Your task to perform on an android device: Go to eBay Image 0: 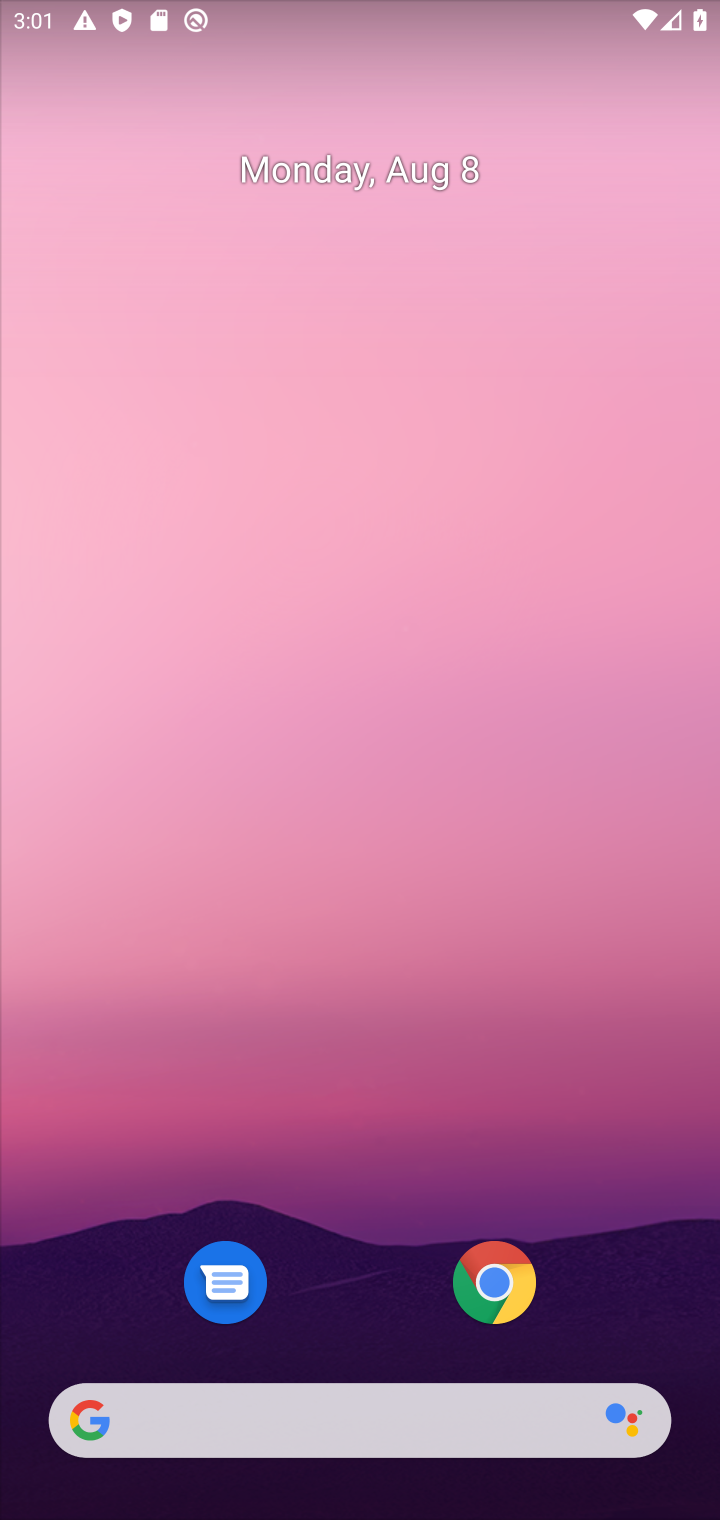
Step 0: drag from (354, 965) to (476, 269)
Your task to perform on an android device: Go to eBay Image 1: 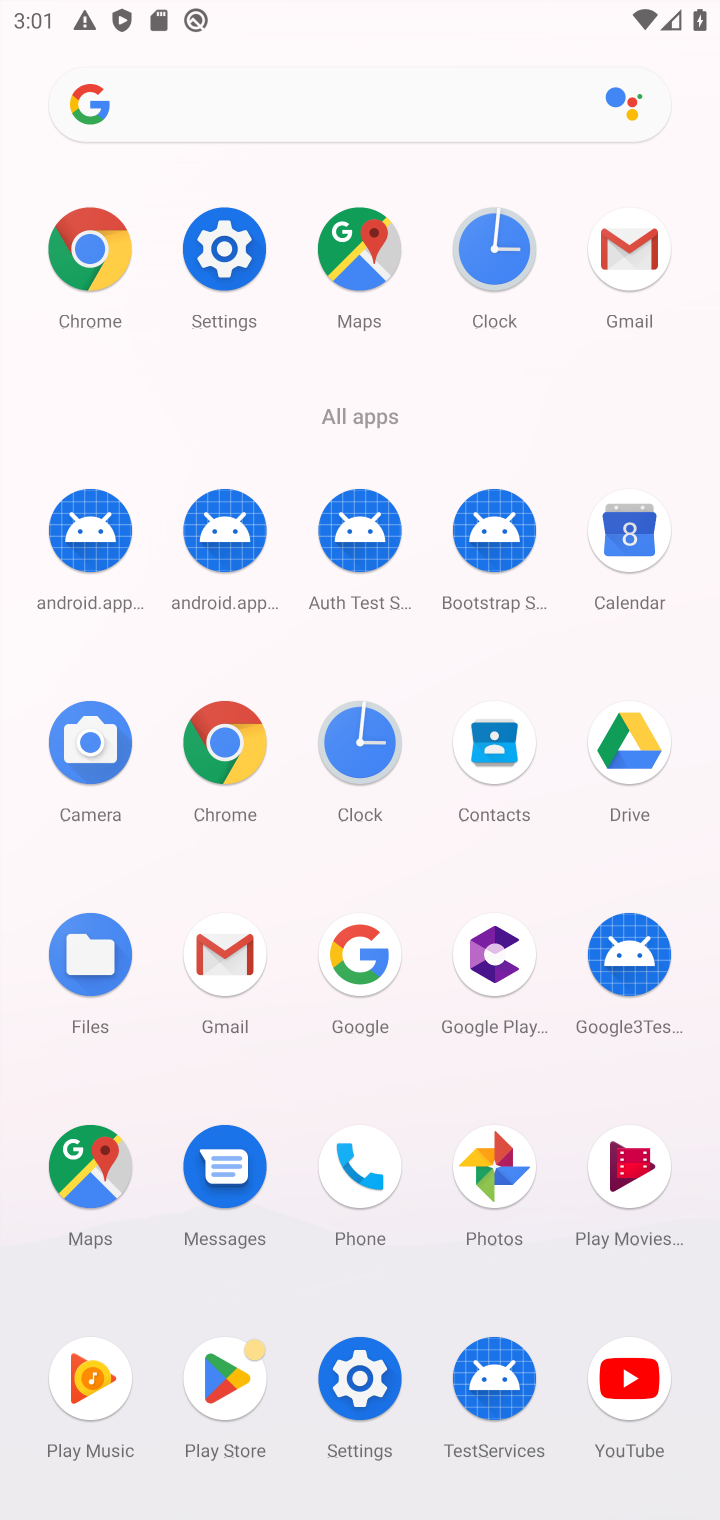
Step 1: click (224, 738)
Your task to perform on an android device: Go to eBay Image 2: 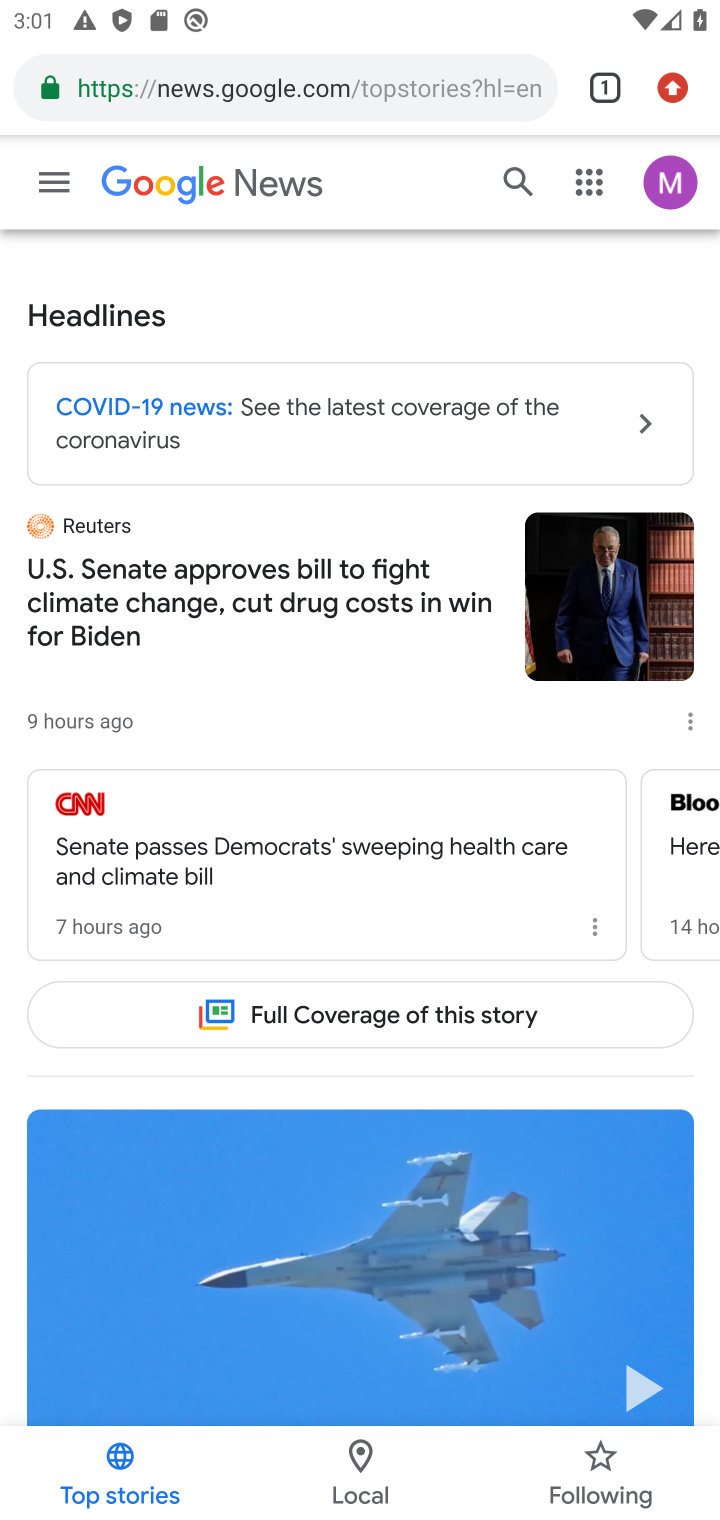
Step 2: click (381, 89)
Your task to perform on an android device: Go to eBay Image 3: 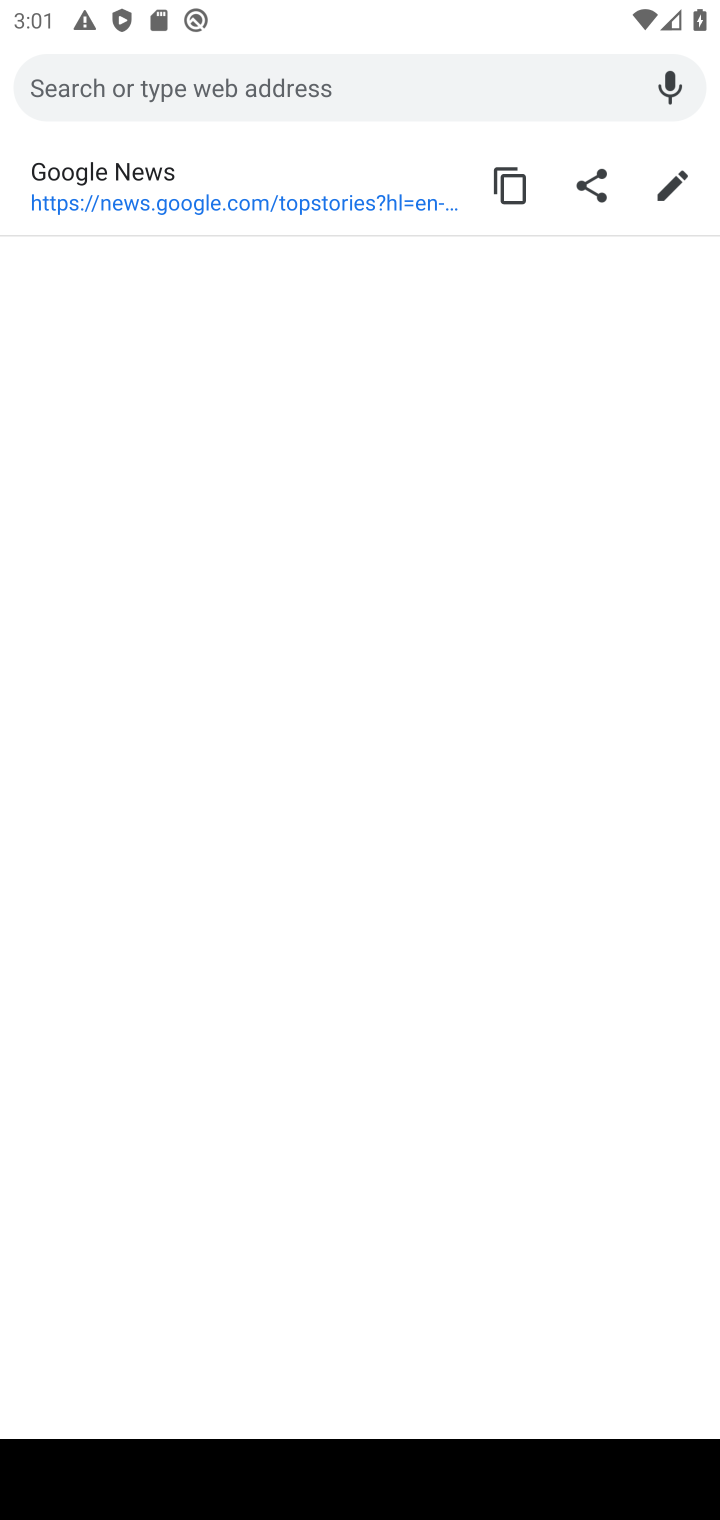
Step 3: type "ebay"
Your task to perform on an android device: Go to eBay Image 4: 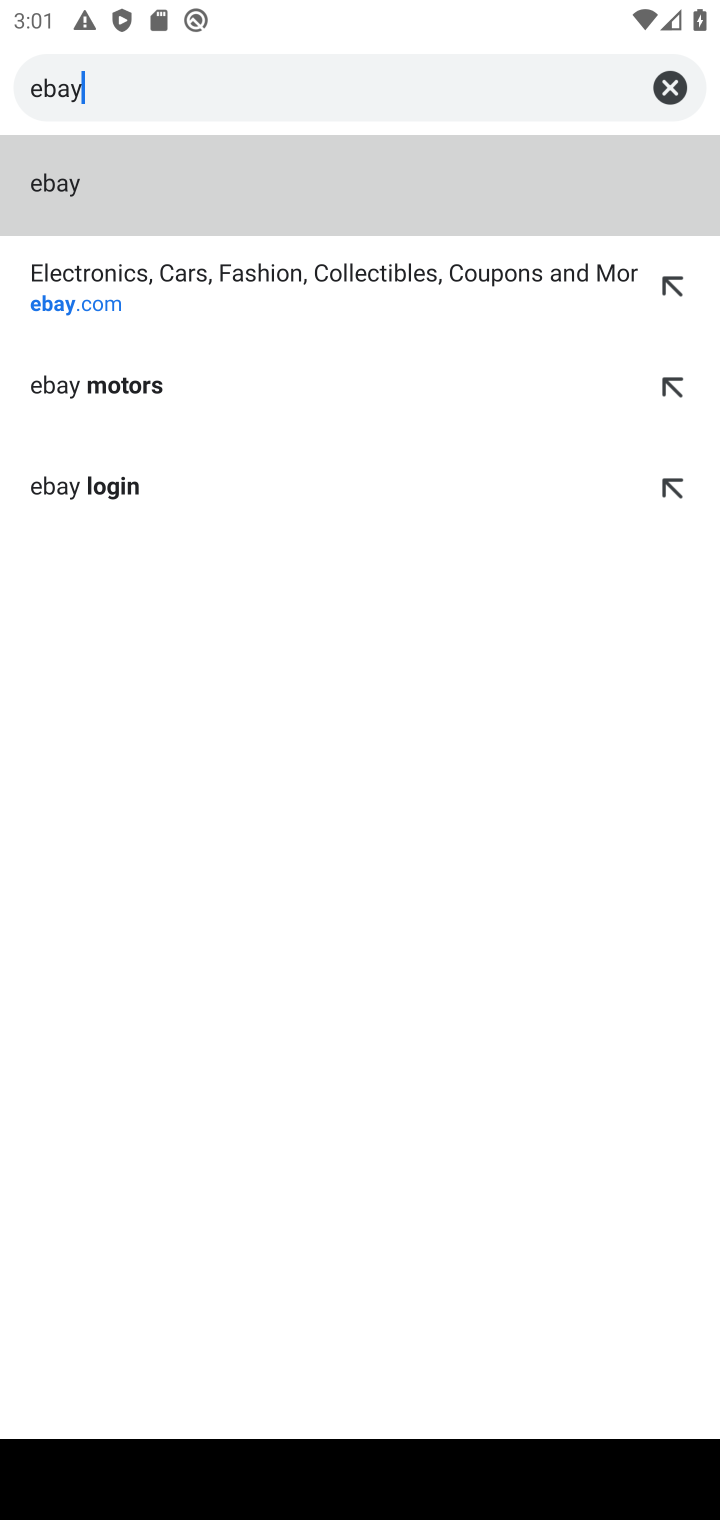
Step 4: click (44, 311)
Your task to perform on an android device: Go to eBay Image 5: 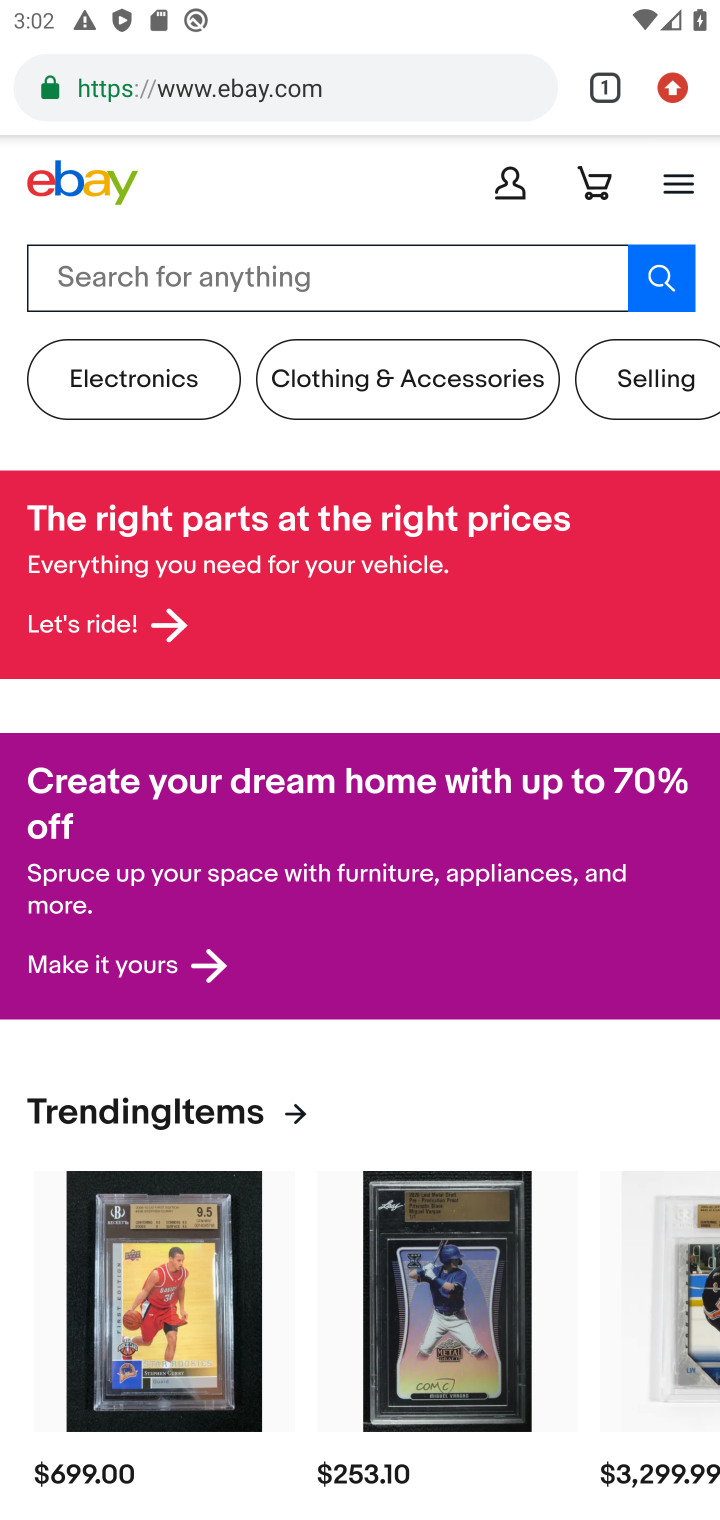
Step 5: task complete